Your task to perform on an android device: turn on data saver in the chrome app Image 0: 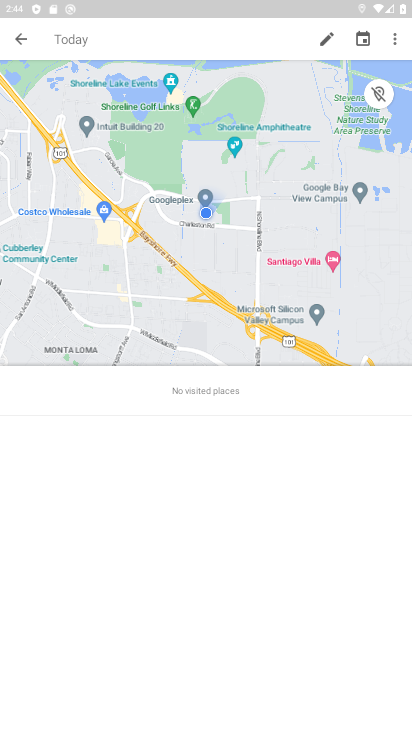
Step 0: press back button
Your task to perform on an android device: turn on data saver in the chrome app Image 1: 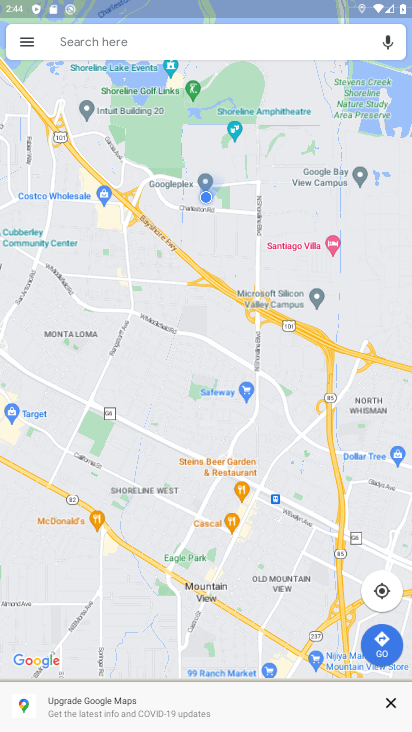
Step 1: press back button
Your task to perform on an android device: turn on data saver in the chrome app Image 2: 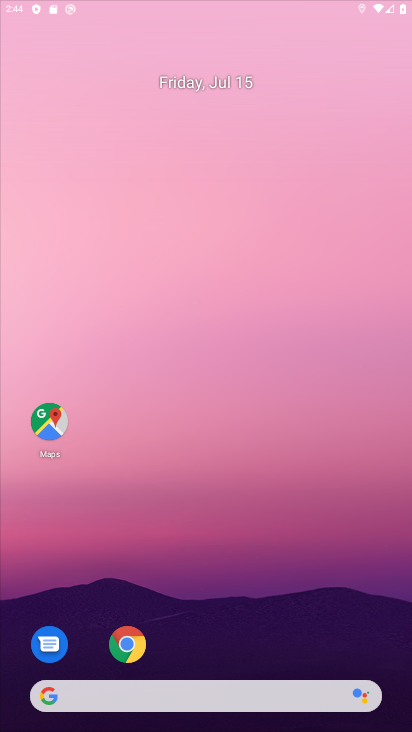
Step 2: press back button
Your task to perform on an android device: turn on data saver in the chrome app Image 3: 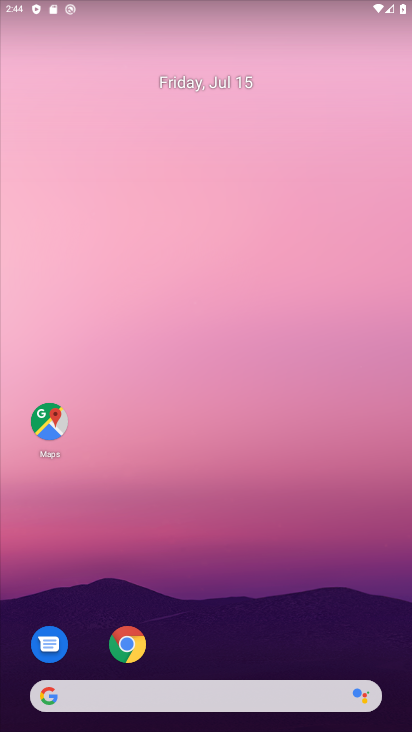
Step 3: click (132, 652)
Your task to perform on an android device: turn on data saver in the chrome app Image 4: 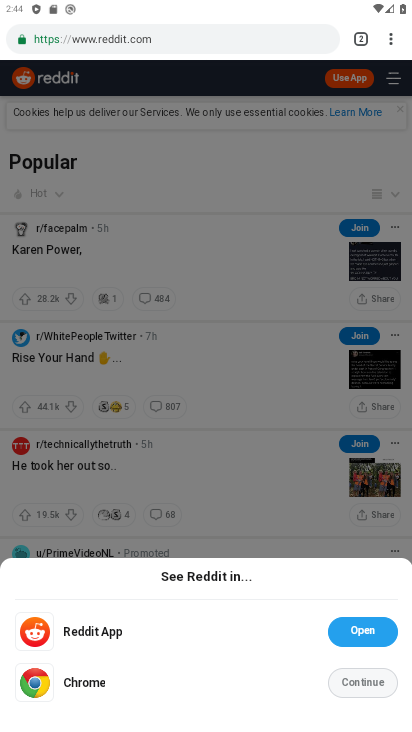
Step 4: drag from (393, 40) to (249, 468)
Your task to perform on an android device: turn on data saver in the chrome app Image 5: 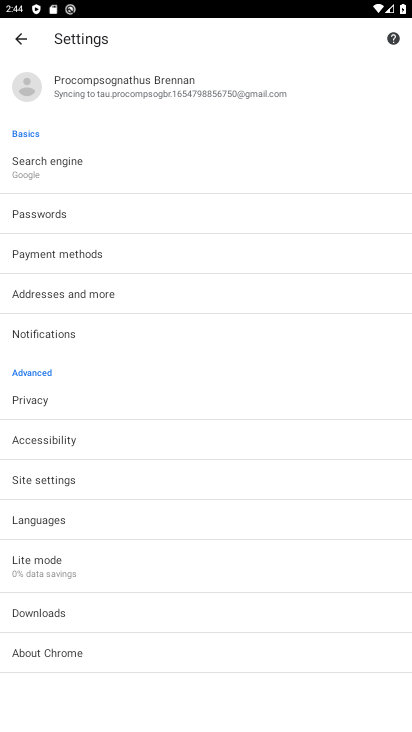
Step 5: click (60, 564)
Your task to perform on an android device: turn on data saver in the chrome app Image 6: 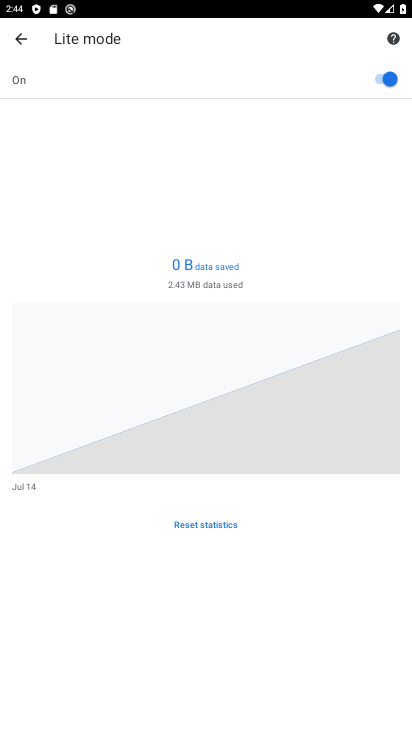
Step 6: task complete